Your task to perform on an android device: Search for Mexican restaurants on Maps Image 0: 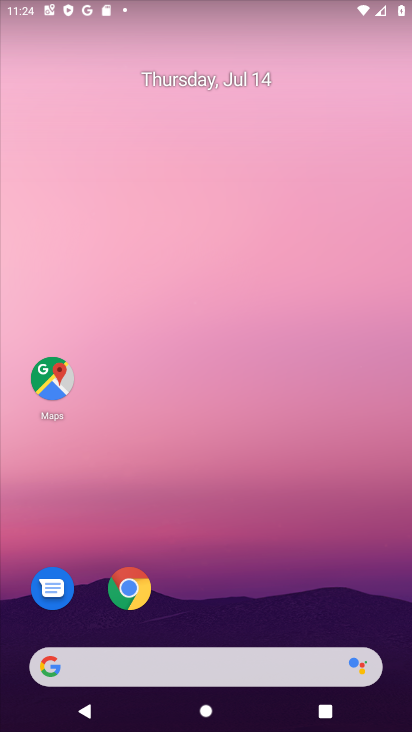
Step 0: press home button
Your task to perform on an android device: Search for Mexican restaurants on Maps Image 1: 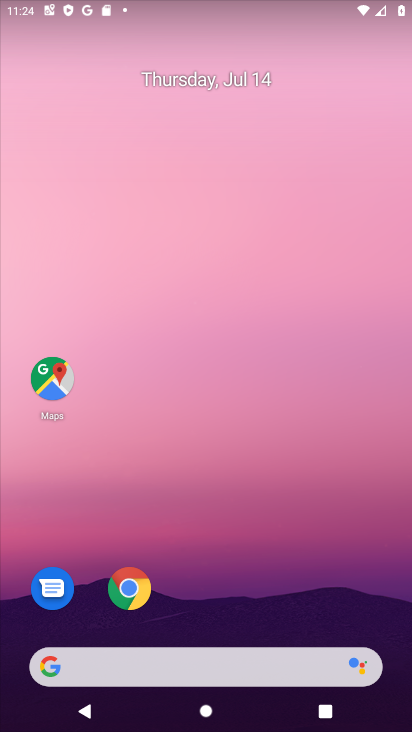
Step 1: click (56, 375)
Your task to perform on an android device: Search for Mexican restaurants on Maps Image 2: 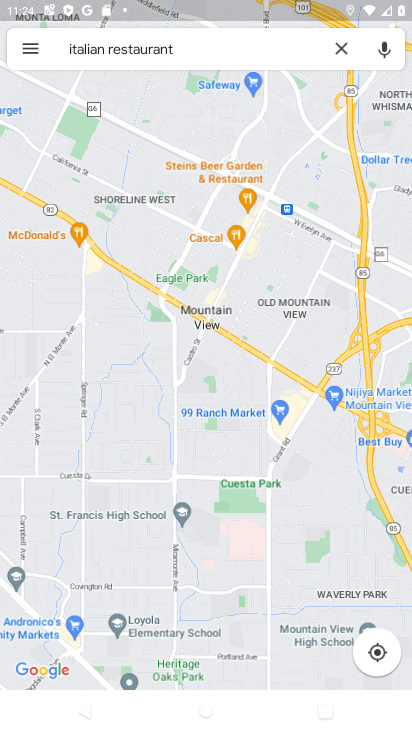
Step 2: click (343, 50)
Your task to perform on an android device: Search for Mexican restaurants on Maps Image 3: 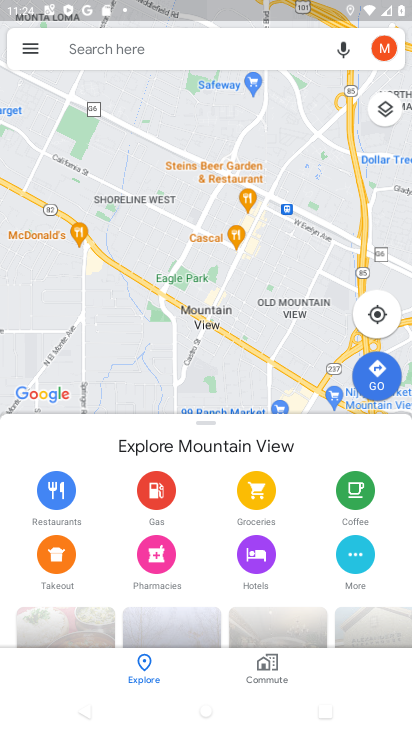
Step 3: click (212, 48)
Your task to perform on an android device: Search for Mexican restaurants on Maps Image 4: 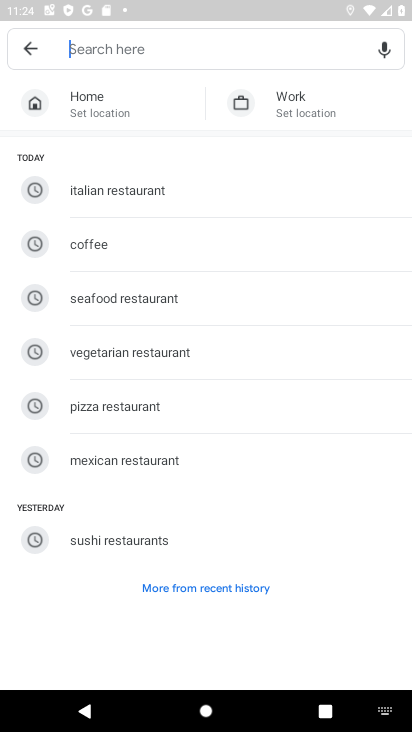
Step 4: click (125, 459)
Your task to perform on an android device: Search for Mexican restaurants on Maps Image 5: 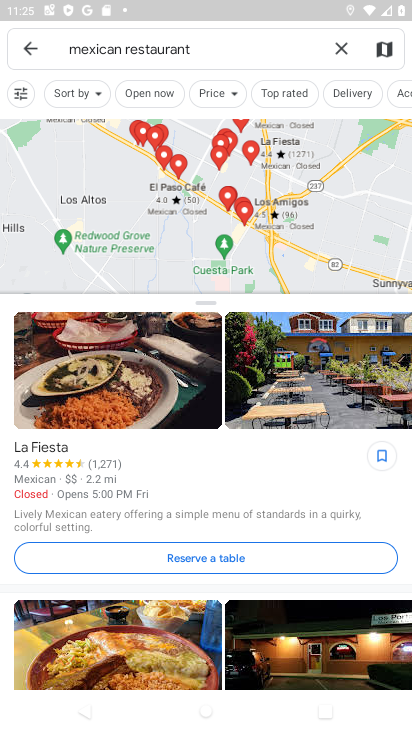
Step 5: task complete